Your task to perform on an android device: What is the news today? Image 0: 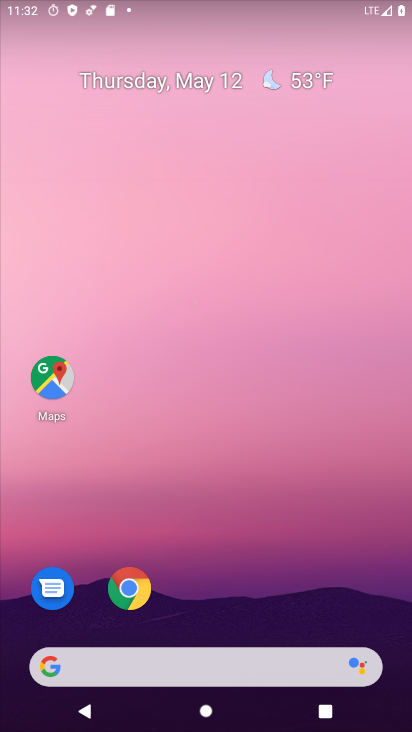
Step 0: drag from (262, 579) to (288, 201)
Your task to perform on an android device: What is the news today? Image 1: 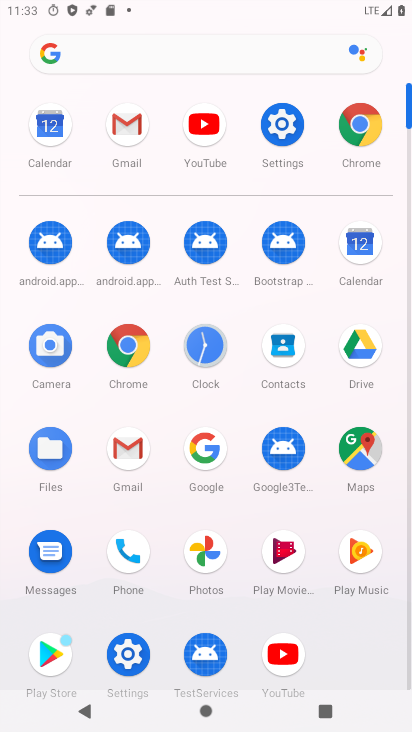
Step 1: click (132, 338)
Your task to perform on an android device: What is the news today? Image 2: 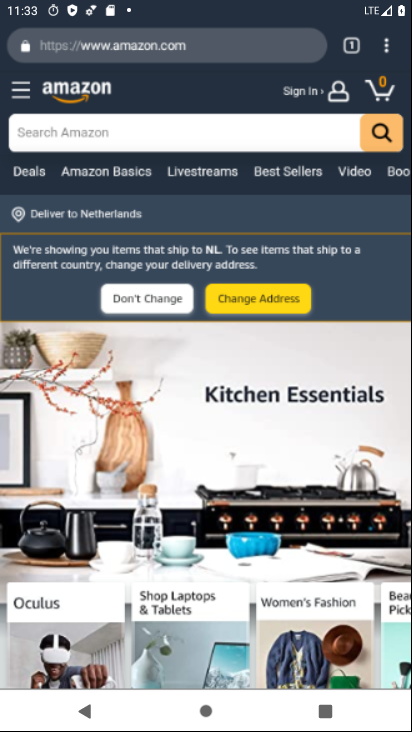
Step 2: click (221, 46)
Your task to perform on an android device: What is the news today? Image 3: 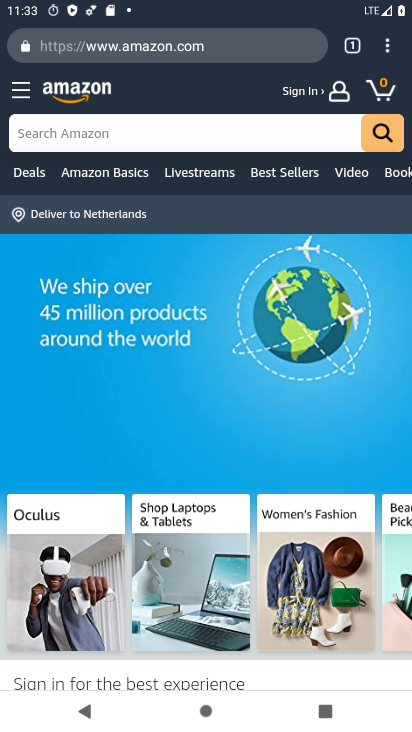
Step 3: click (253, 40)
Your task to perform on an android device: What is the news today? Image 4: 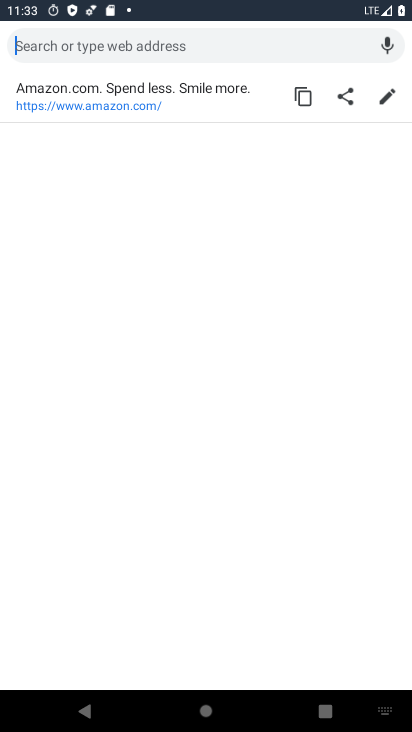
Step 4: type "news"
Your task to perform on an android device: What is the news today? Image 5: 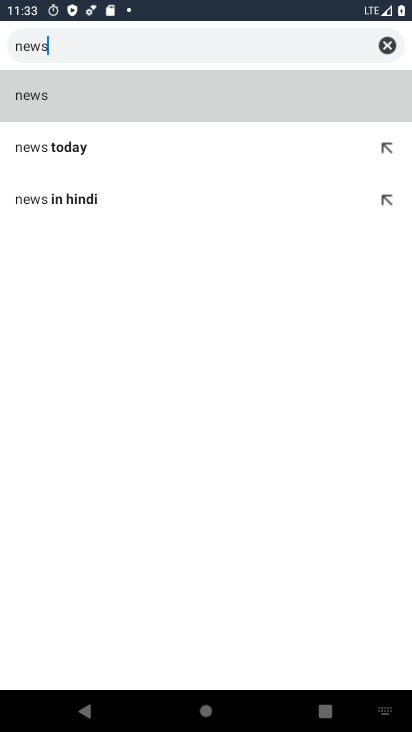
Step 5: click (40, 88)
Your task to perform on an android device: What is the news today? Image 6: 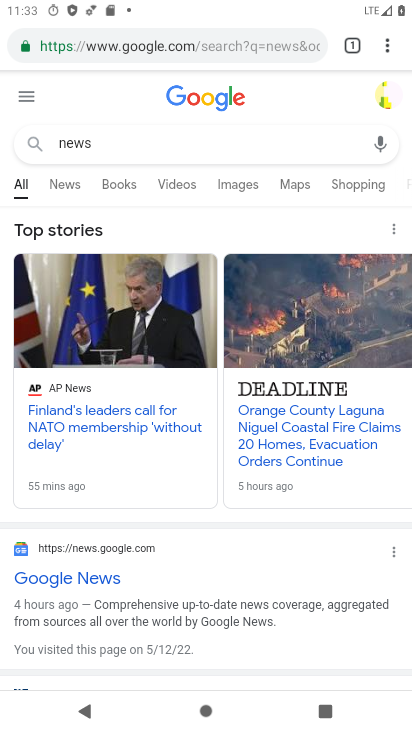
Step 6: click (62, 179)
Your task to perform on an android device: What is the news today? Image 7: 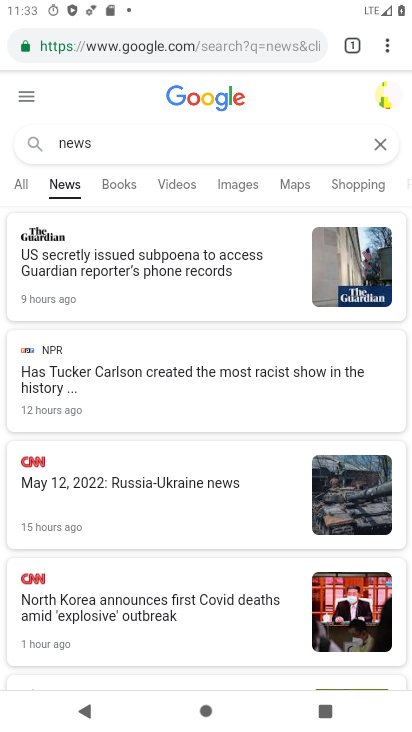
Step 7: task complete